Your task to perform on an android device: Go to Amazon Image 0: 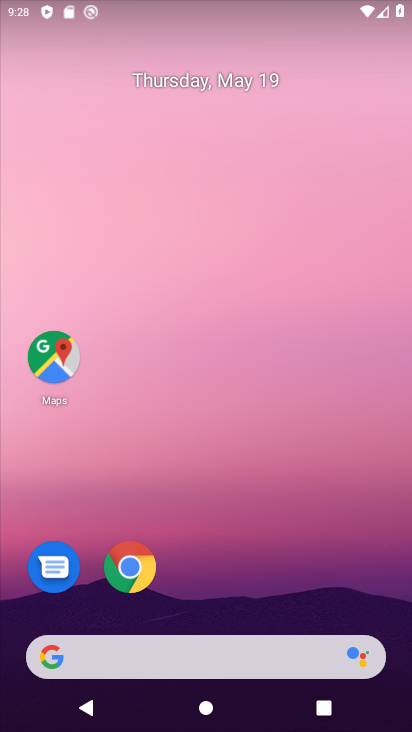
Step 0: click (119, 563)
Your task to perform on an android device: Go to Amazon Image 1: 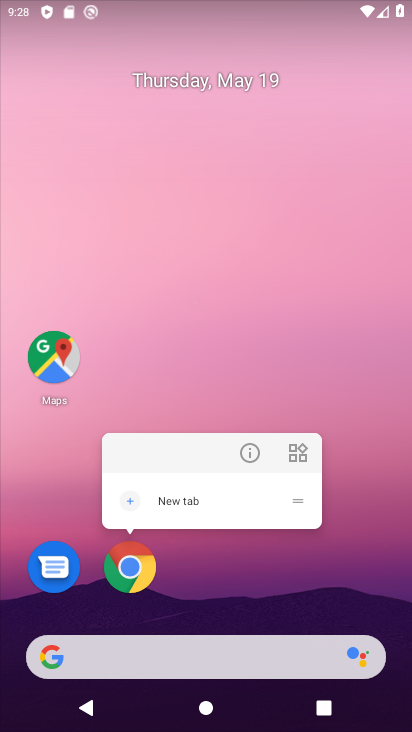
Step 1: click (123, 569)
Your task to perform on an android device: Go to Amazon Image 2: 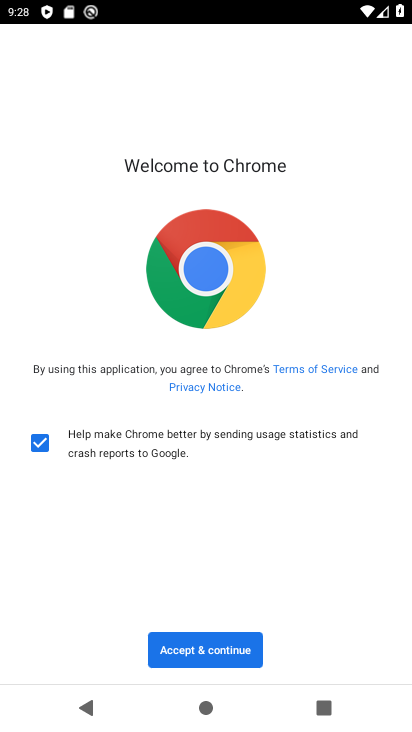
Step 2: click (201, 647)
Your task to perform on an android device: Go to Amazon Image 3: 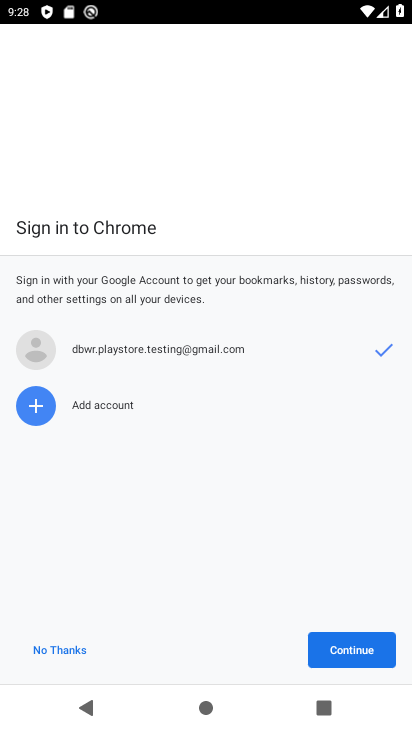
Step 3: click (351, 644)
Your task to perform on an android device: Go to Amazon Image 4: 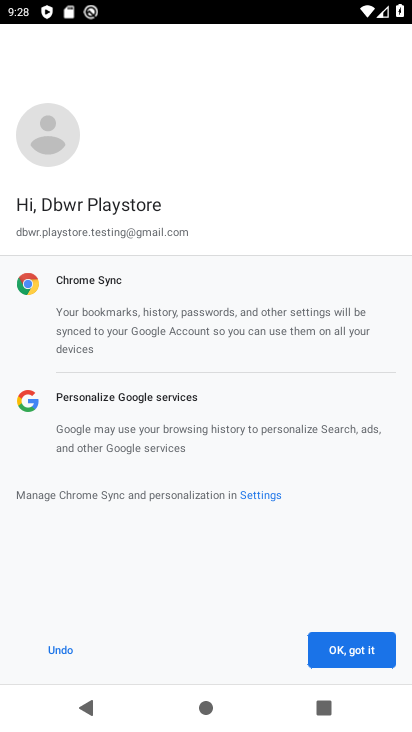
Step 4: click (362, 656)
Your task to perform on an android device: Go to Amazon Image 5: 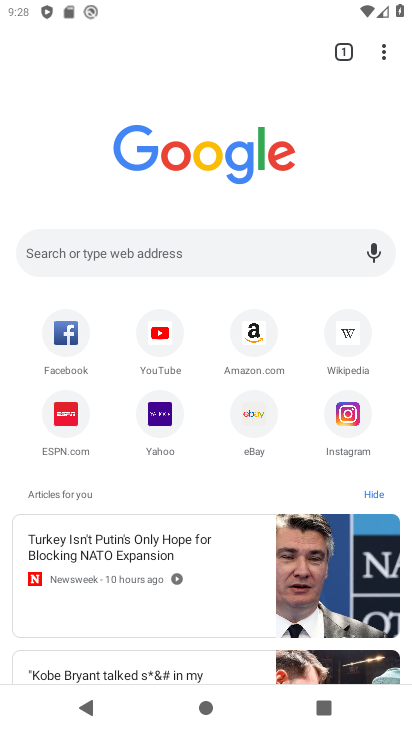
Step 5: click (252, 331)
Your task to perform on an android device: Go to Amazon Image 6: 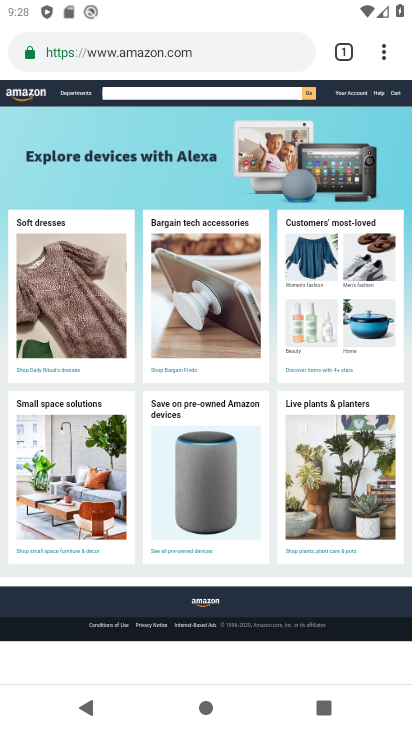
Step 6: task complete